Your task to perform on an android device: Is it going to rain tomorrow? Image 0: 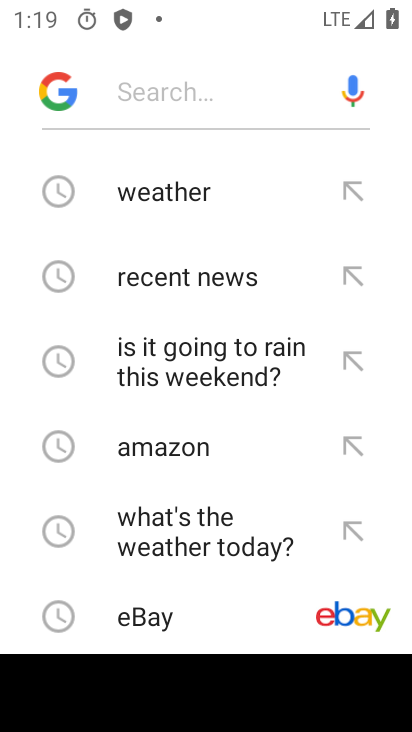
Step 0: press home button
Your task to perform on an android device: Is it going to rain tomorrow? Image 1: 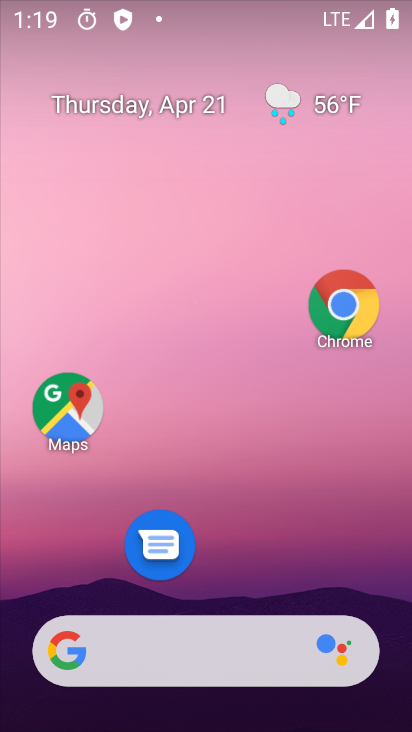
Step 1: click (305, 105)
Your task to perform on an android device: Is it going to rain tomorrow? Image 2: 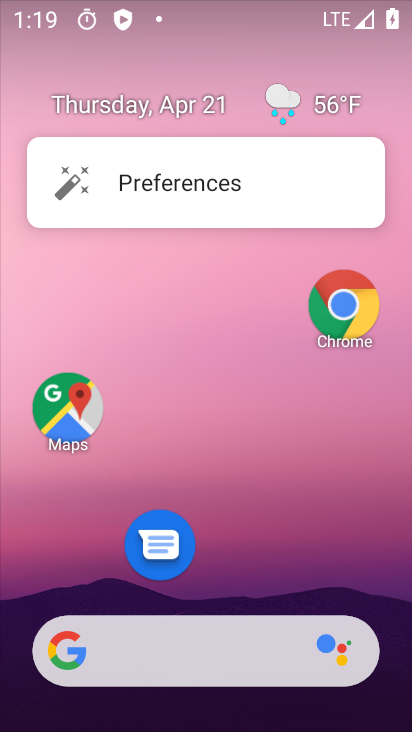
Step 2: click (287, 100)
Your task to perform on an android device: Is it going to rain tomorrow? Image 3: 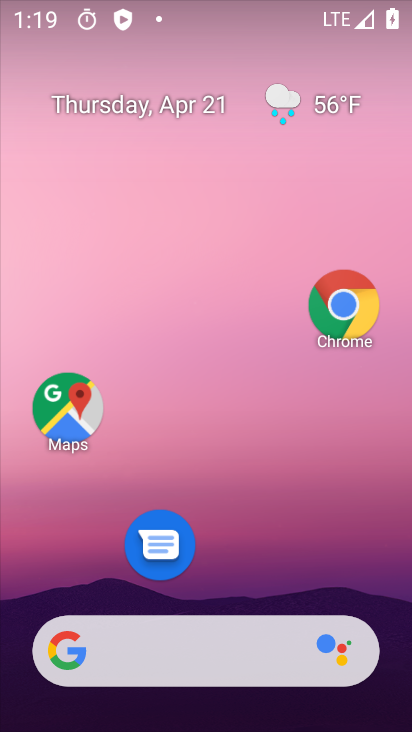
Step 3: click (325, 101)
Your task to perform on an android device: Is it going to rain tomorrow? Image 4: 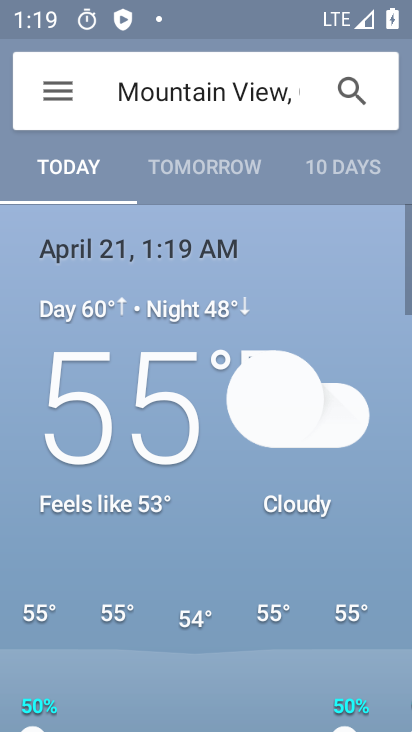
Step 4: click (226, 169)
Your task to perform on an android device: Is it going to rain tomorrow? Image 5: 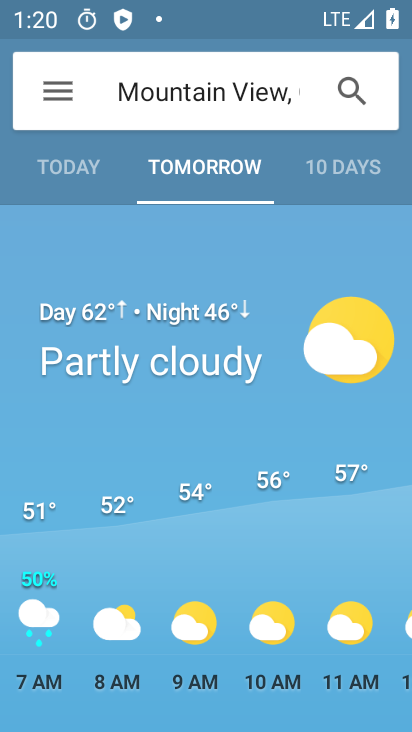
Step 5: task complete